Your task to perform on an android device: open app "Roku - Official Remote Control" Image 0: 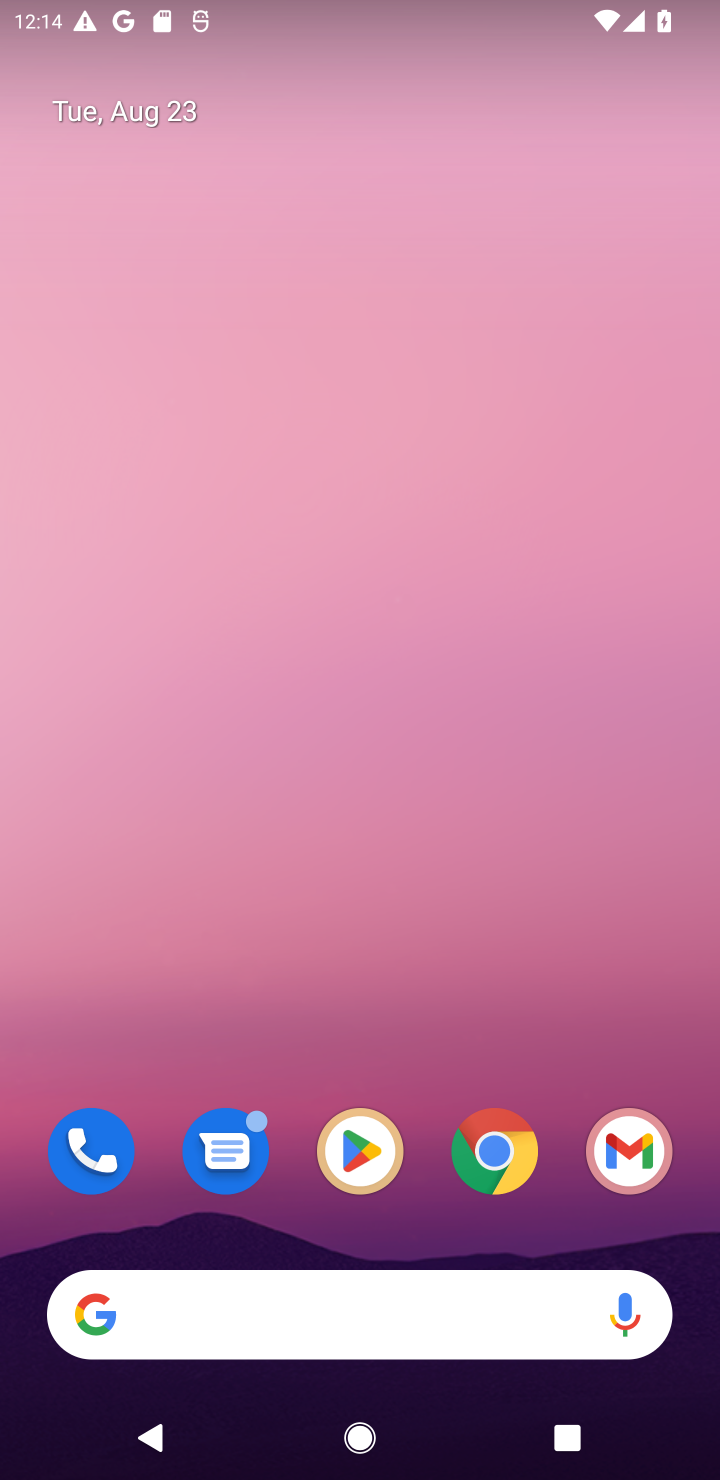
Step 0: click (365, 1132)
Your task to perform on an android device: open app "Roku - Official Remote Control" Image 1: 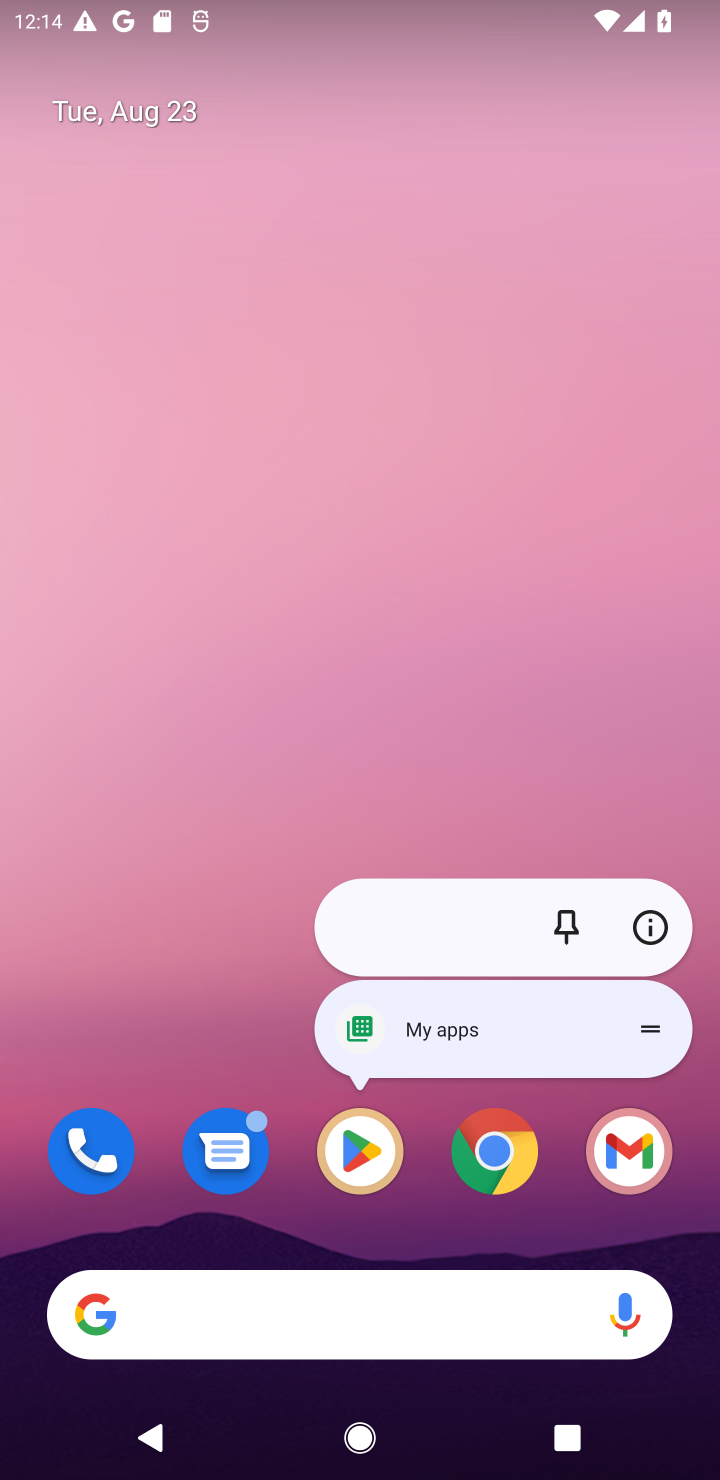
Step 1: click (360, 1136)
Your task to perform on an android device: open app "Roku - Official Remote Control" Image 2: 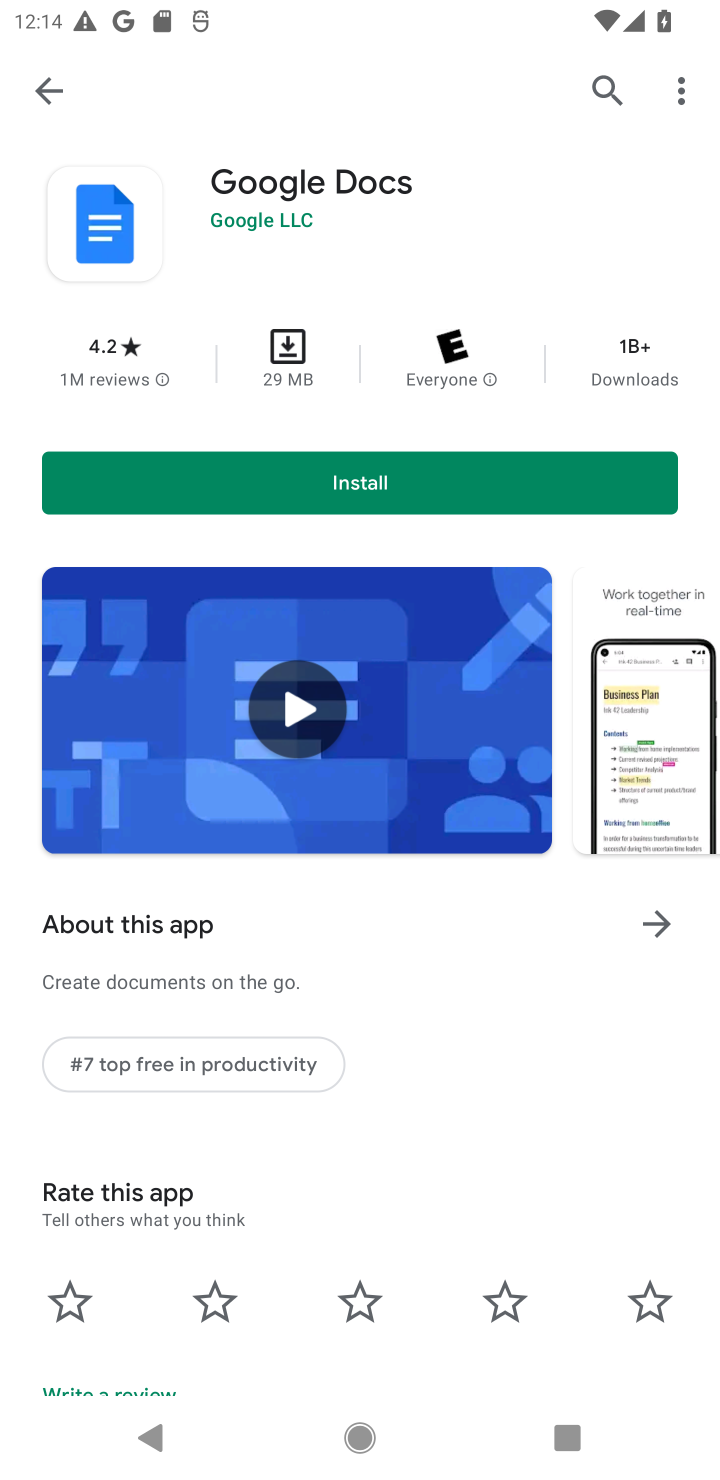
Step 2: click (590, 100)
Your task to perform on an android device: open app "Roku - Official Remote Control" Image 3: 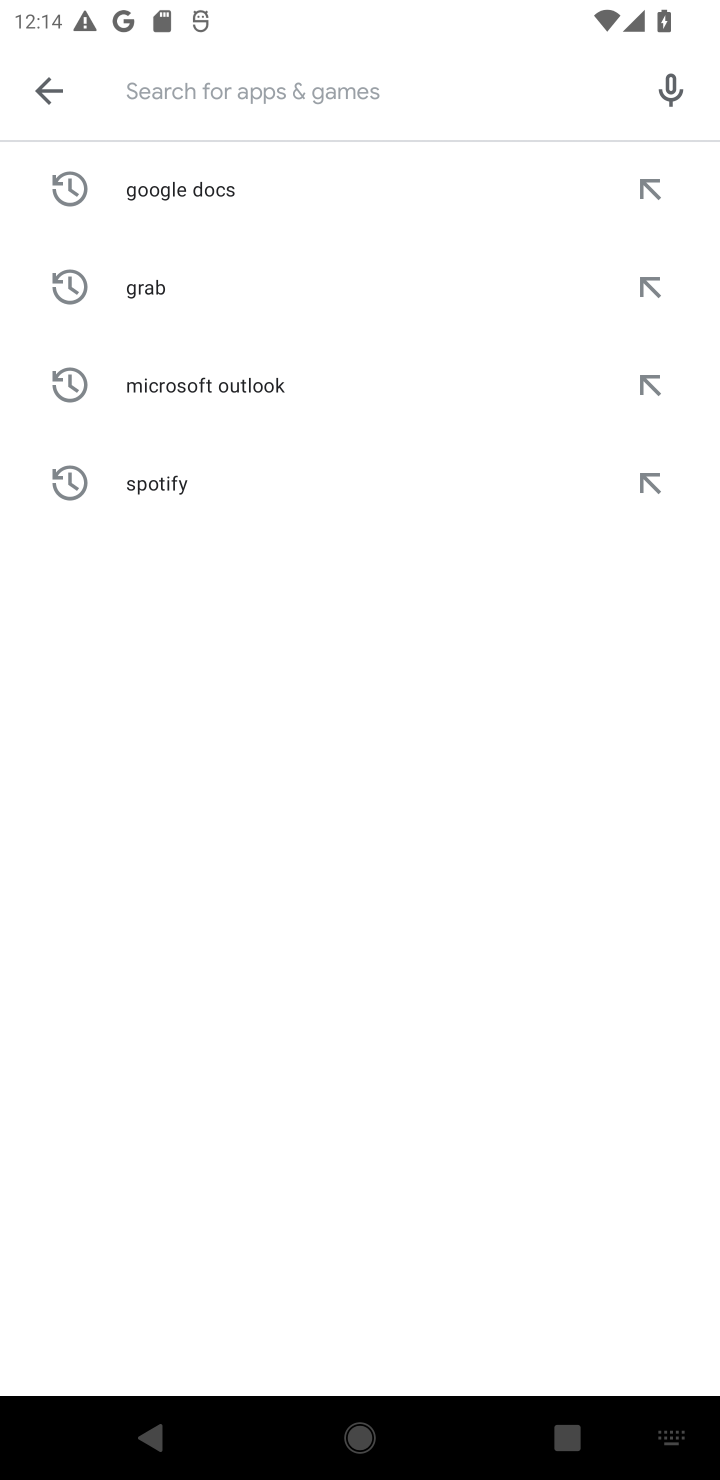
Step 3: click (398, 110)
Your task to perform on an android device: open app "Roku - Official Remote Control" Image 4: 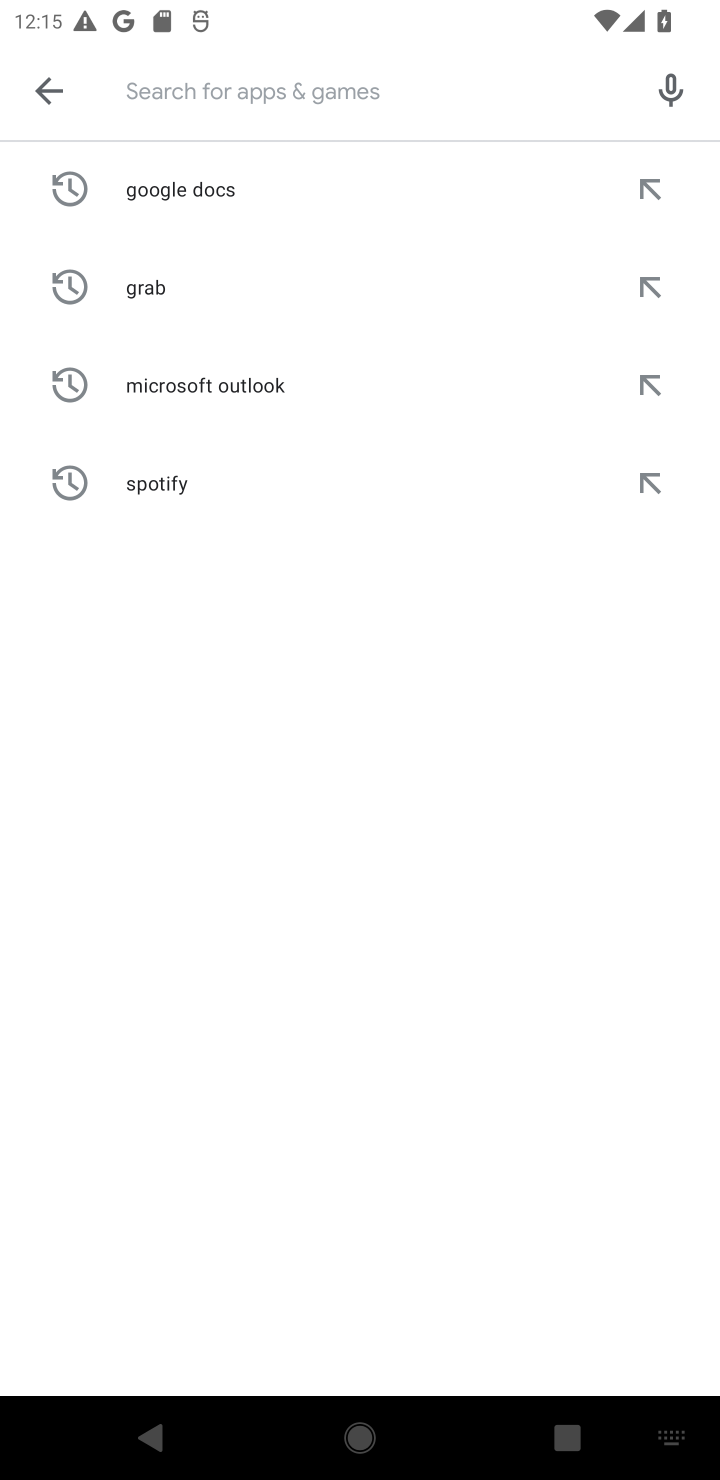
Step 4: type "Roku - Official Remote Control"
Your task to perform on an android device: open app "Roku - Official Remote Control" Image 5: 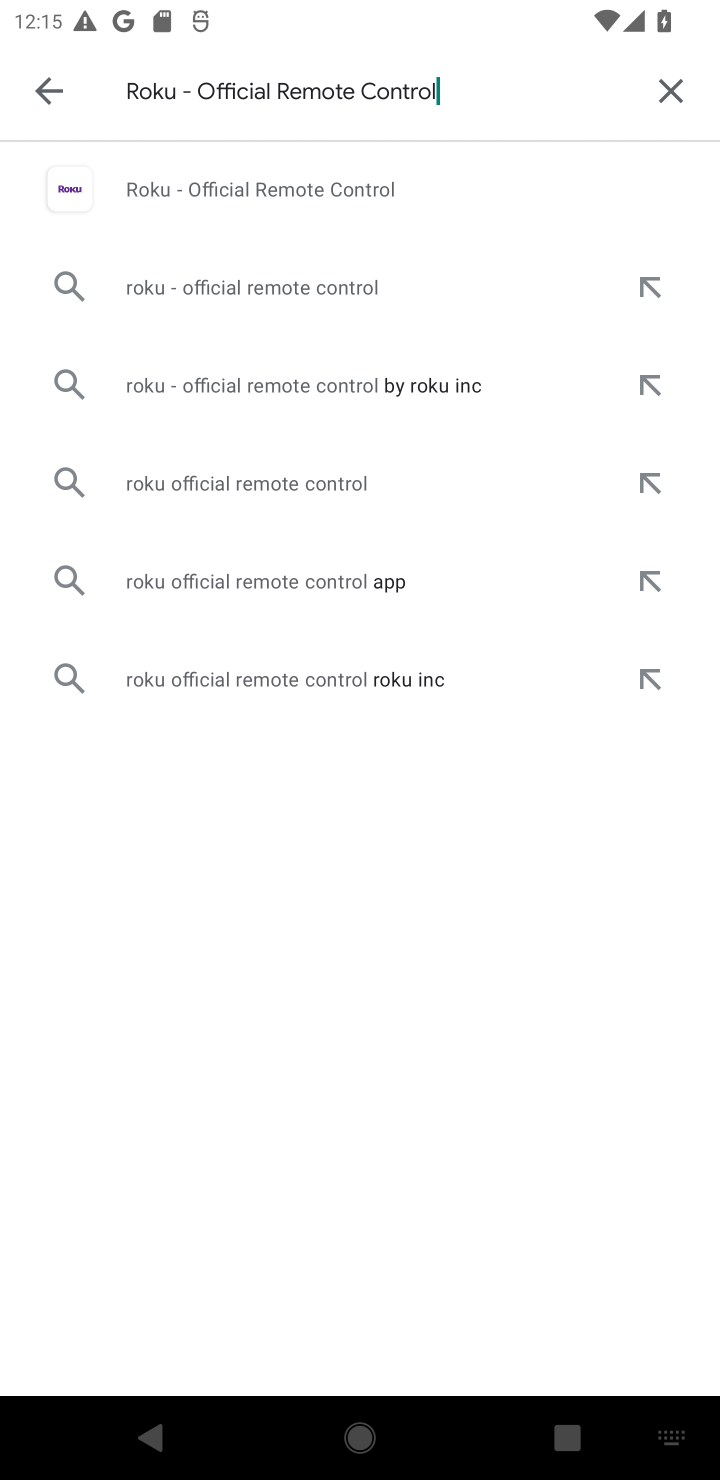
Step 5: click (306, 203)
Your task to perform on an android device: open app "Roku - Official Remote Control" Image 6: 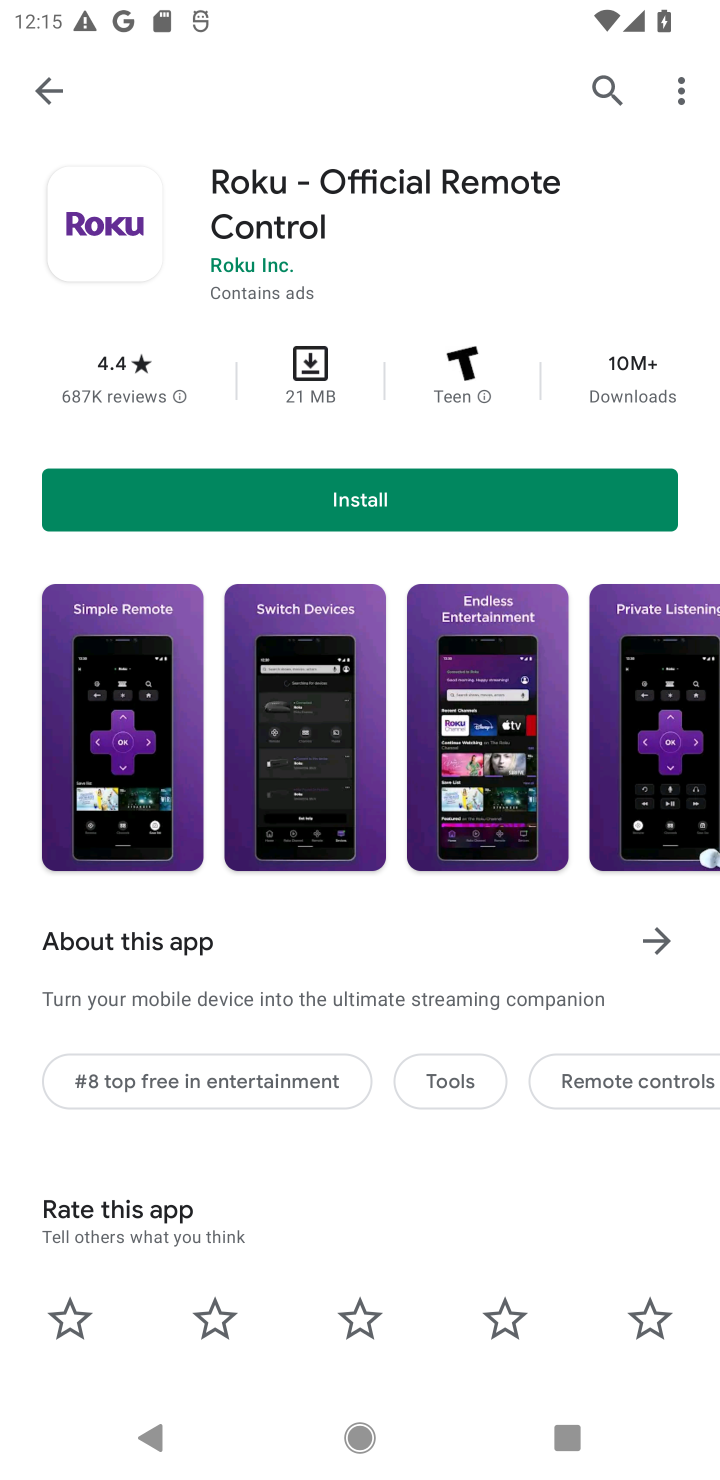
Step 6: task complete